Your task to perform on an android device: Go to accessibility settings Image 0: 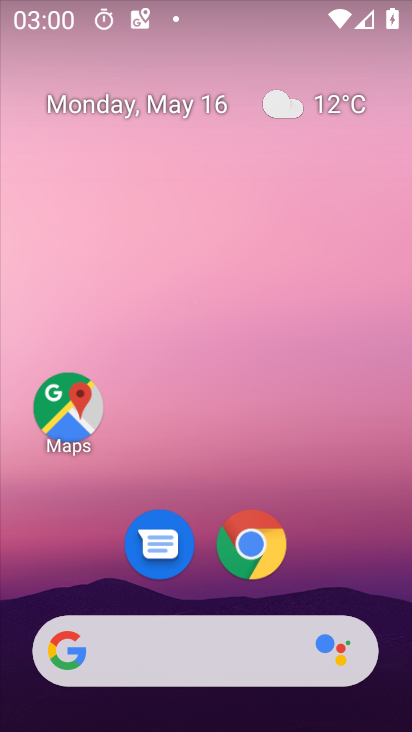
Step 0: drag from (189, 722) to (275, 137)
Your task to perform on an android device: Go to accessibility settings Image 1: 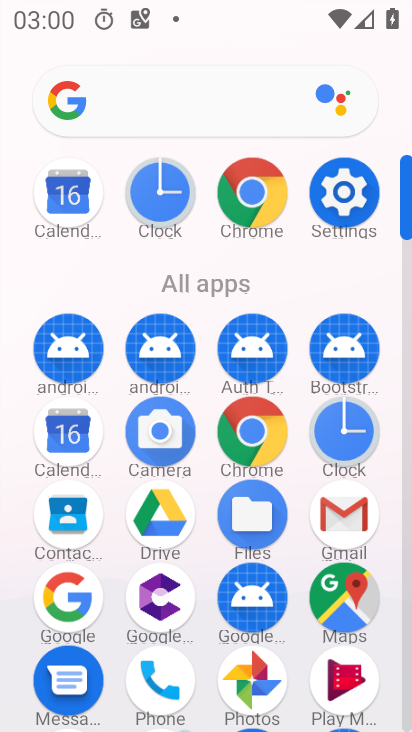
Step 1: click (342, 192)
Your task to perform on an android device: Go to accessibility settings Image 2: 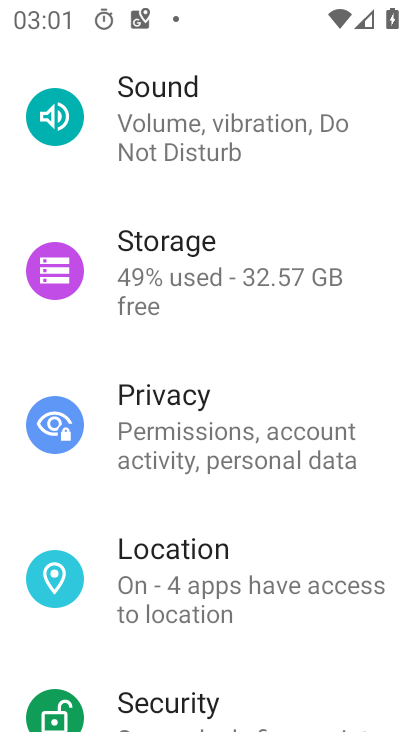
Step 2: drag from (246, 639) to (310, 278)
Your task to perform on an android device: Go to accessibility settings Image 3: 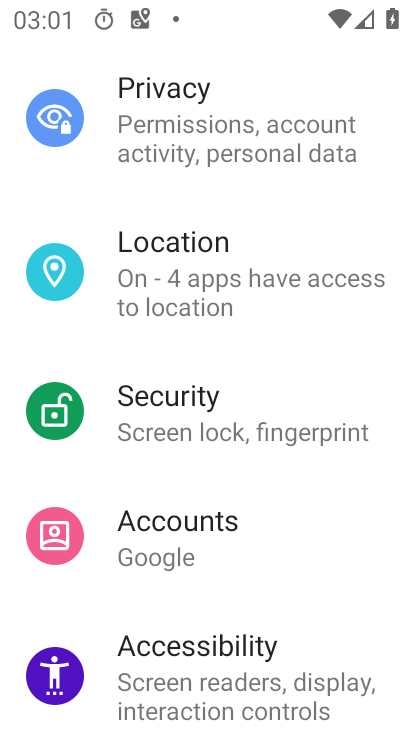
Step 3: click (182, 654)
Your task to perform on an android device: Go to accessibility settings Image 4: 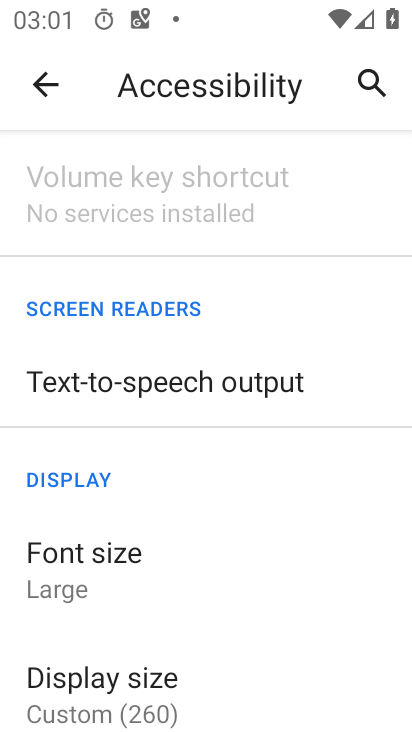
Step 4: task complete